Your task to perform on an android device: change keyboard looks Image 0: 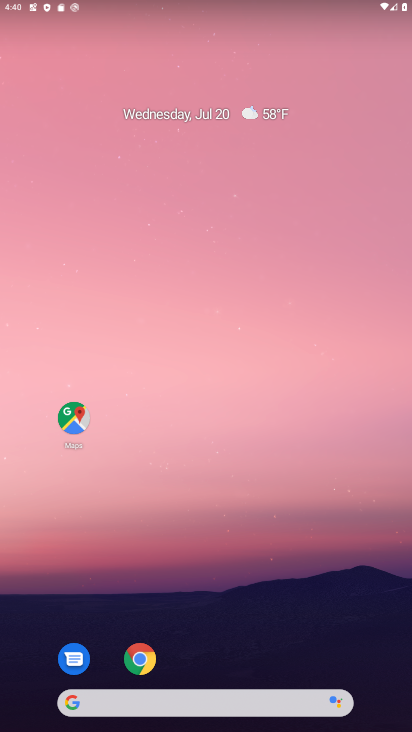
Step 0: drag from (289, 682) to (327, 85)
Your task to perform on an android device: change keyboard looks Image 1: 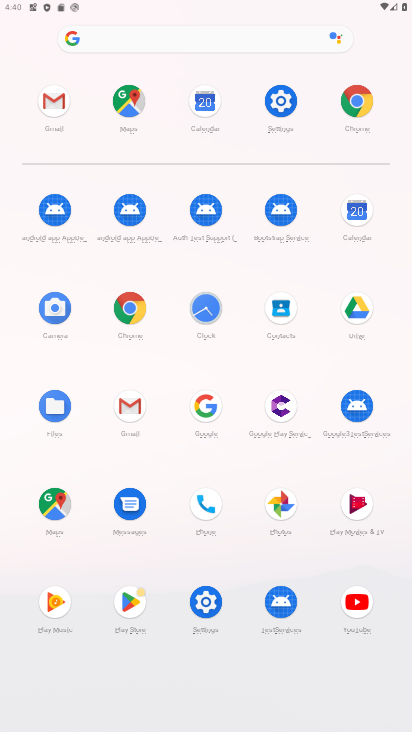
Step 1: click (280, 101)
Your task to perform on an android device: change keyboard looks Image 2: 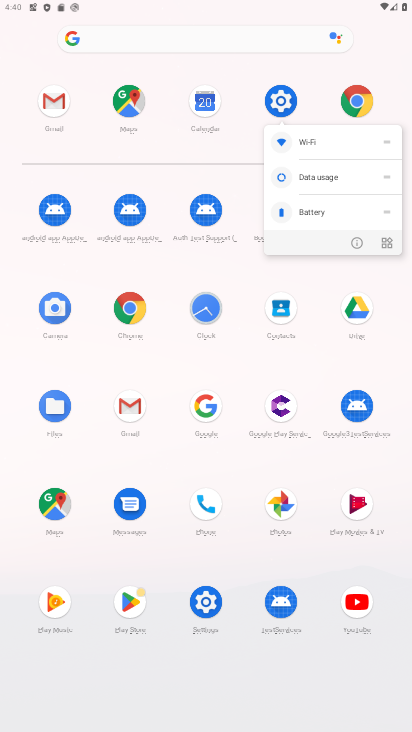
Step 2: click (277, 102)
Your task to perform on an android device: change keyboard looks Image 3: 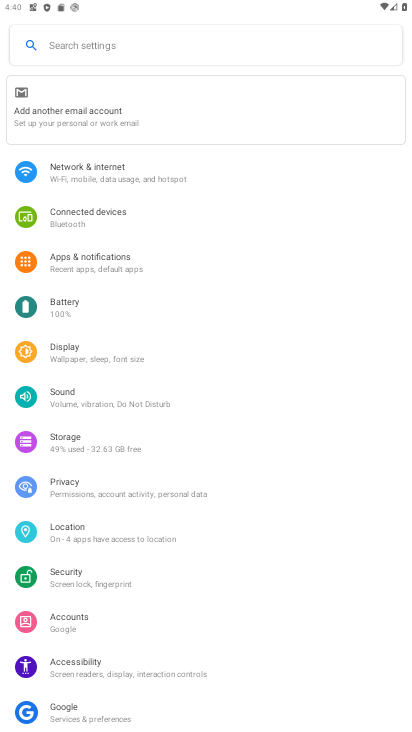
Step 3: drag from (131, 680) to (180, 315)
Your task to perform on an android device: change keyboard looks Image 4: 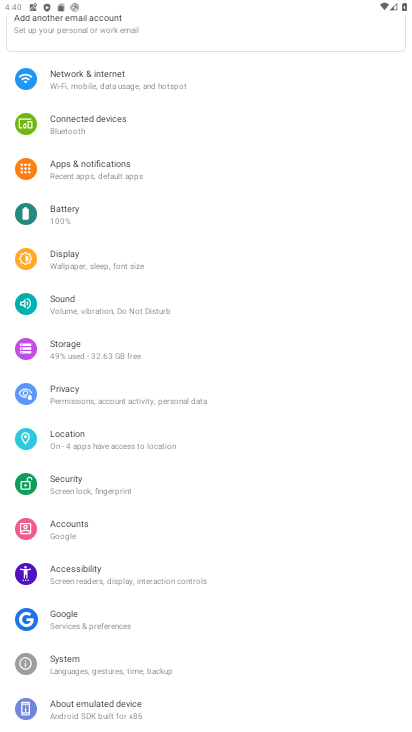
Step 4: click (116, 668)
Your task to perform on an android device: change keyboard looks Image 5: 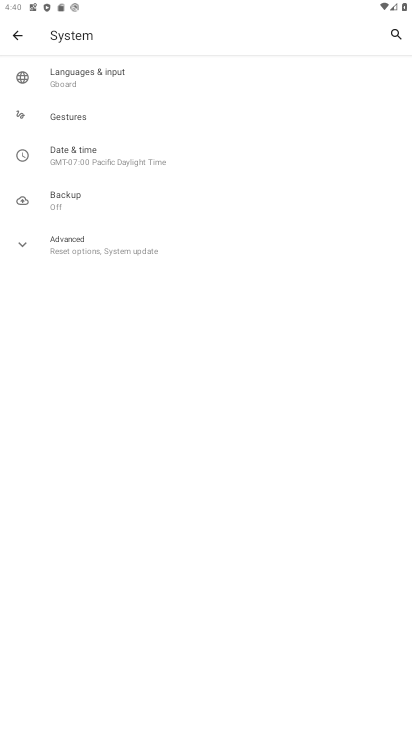
Step 5: click (87, 80)
Your task to perform on an android device: change keyboard looks Image 6: 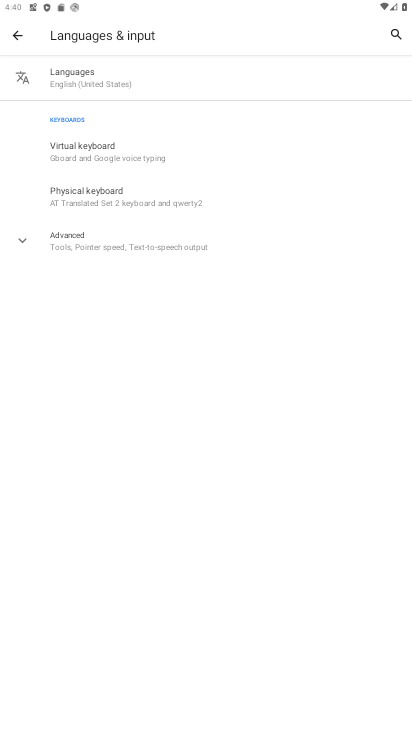
Step 6: click (101, 139)
Your task to perform on an android device: change keyboard looks Image 7: 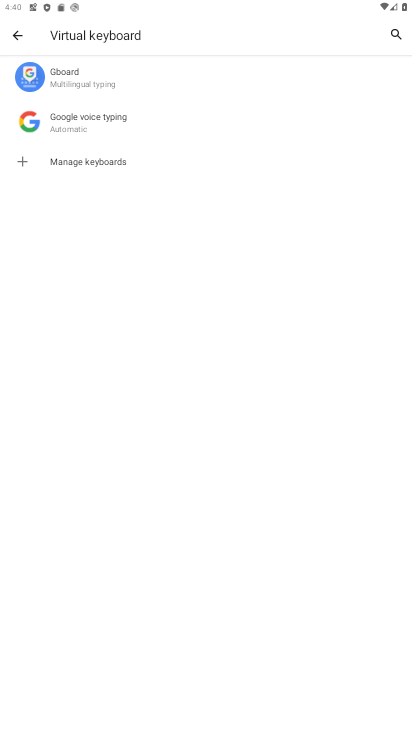
Step 7: click (85, 77)
Your task to perform on an android device: change keyboard looks Image 8: 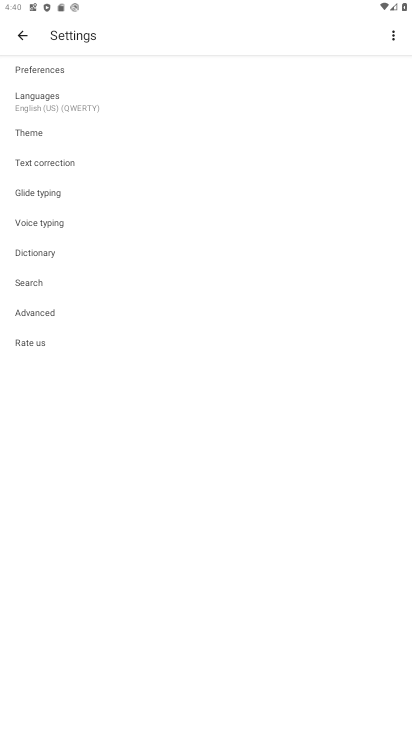
Step 8: click (41, 131)
Your task to perform on an android device: change keyboard looks Image 9: 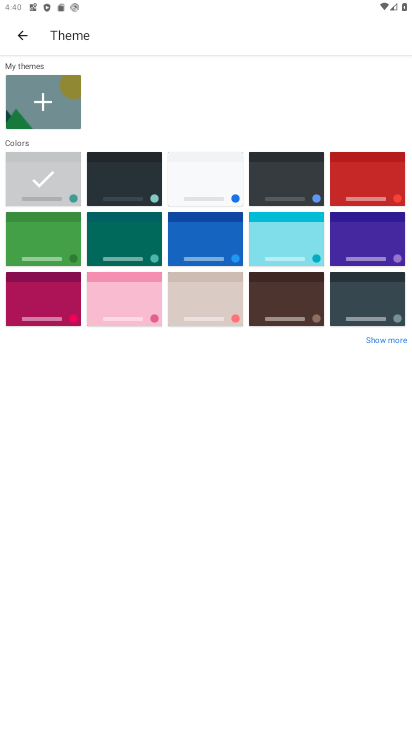
Step 9: click (207, 232)
Your task to perform on an android device: change keyboard looks Image 10: 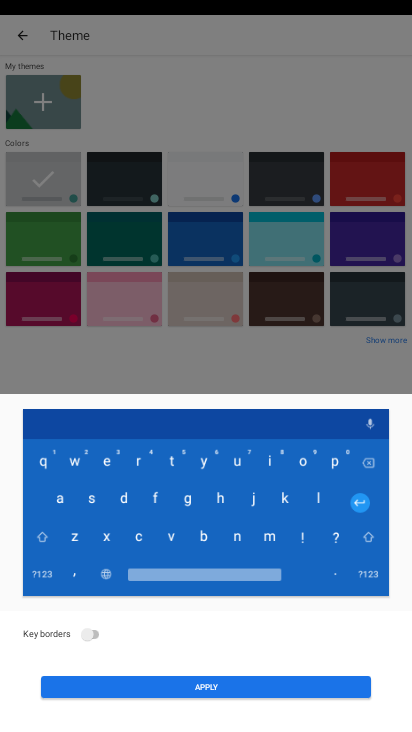
Step 10: click (232, 685)
Your task to perform on an android device: change keyboard looks Image 11: 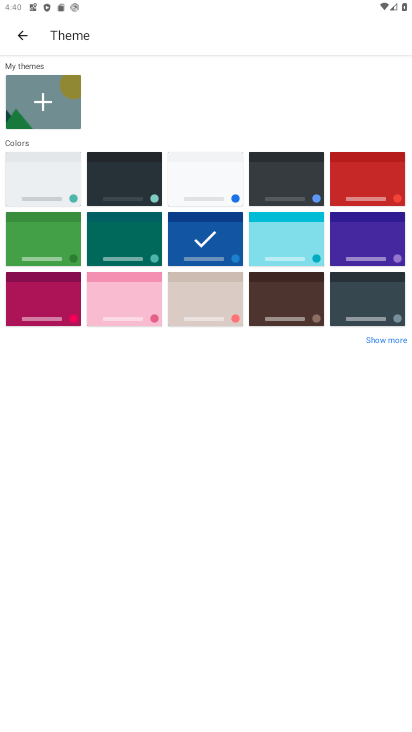
Step 11: task complete